Your task to perform on an android device: delete the emails in spam in the gmail app Image 0: 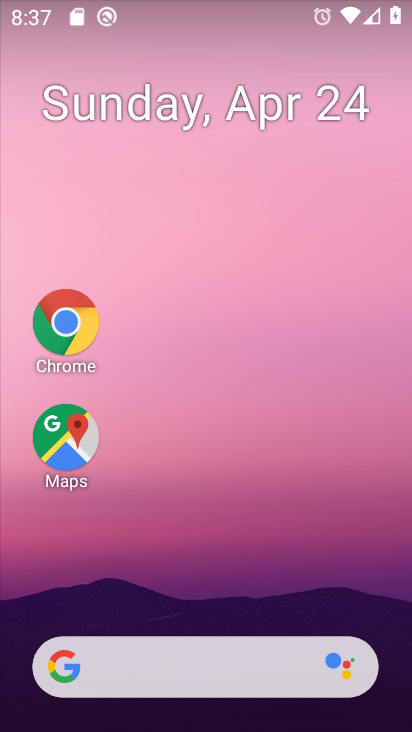
Step 0: drag from (212, 599) to (170, 5)
Your task to perform on an android device: delete the emails in spam in the gmail app Image 1: 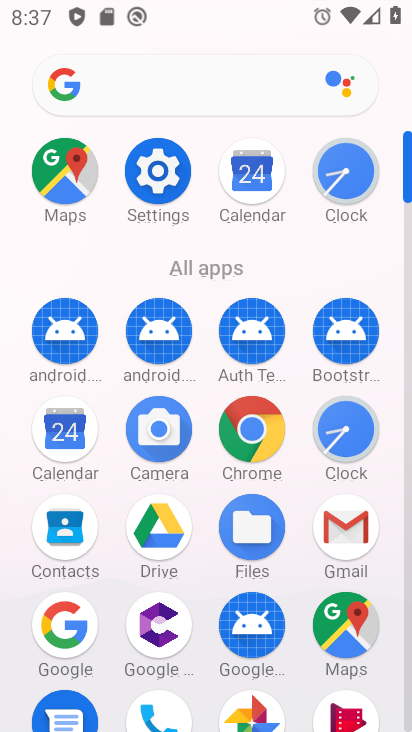
Step 1: click (349, 539)
Your task to perform on an android device: delete the emails in spam in the gmail app Image 2: 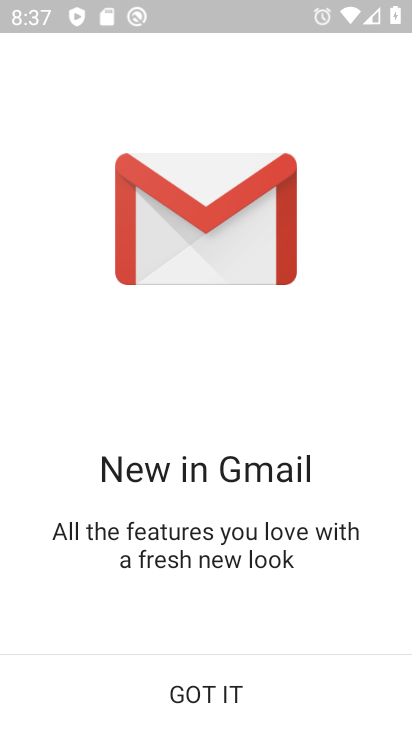
Step 2: click (208, 695)
Your task to perform on an android device: delete the emails in spam in the gmail app Image 3: 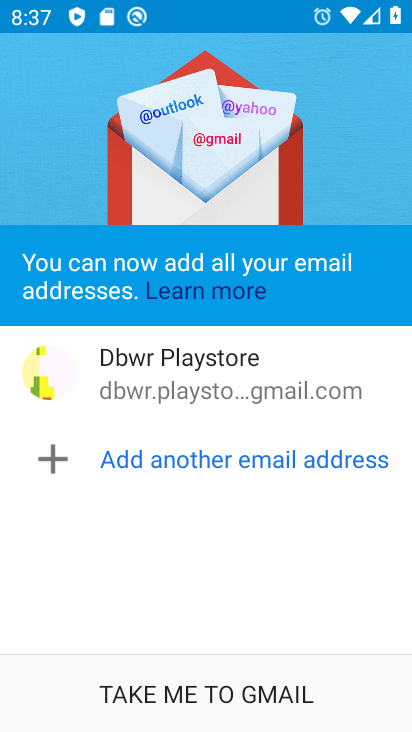
Step 3: click (208, 695)
Your task to perform on an android device: delete the emails in spam in the gmail app Image 4: 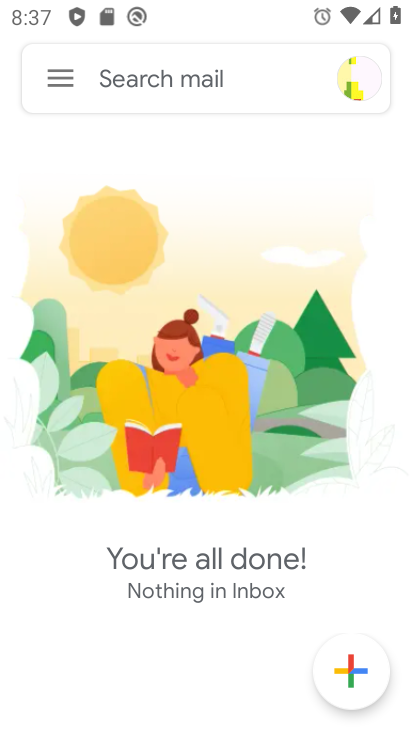
Step 4: click (59, 77)
Your task to perform on an android device: delete the emails in spam in the gmail app Image 5: 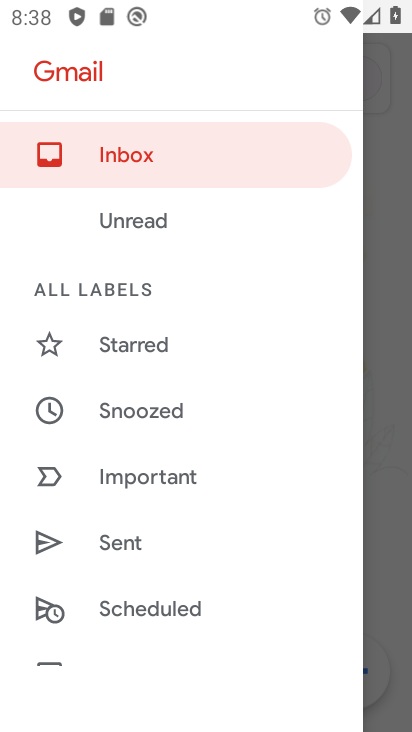
Step 5: drag from (161, 491) to (144, 166)
Your task to perform on an android device: delete the emails in spam in the gmail app Image 6: 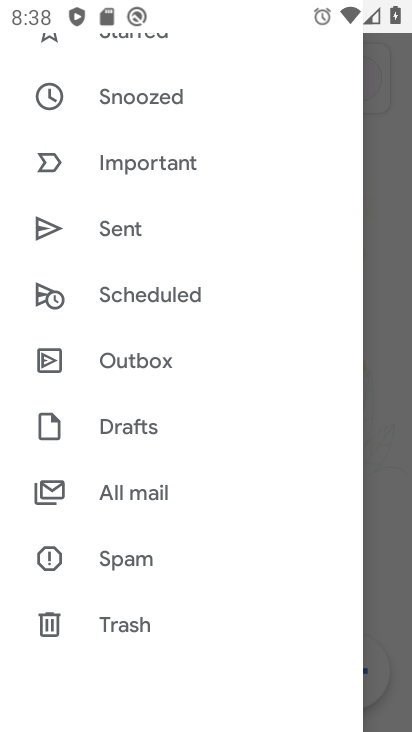
Step 6: click (126, 557)
Your task to perform on an android device: delete the emails in spam in the gmail app Image 7: 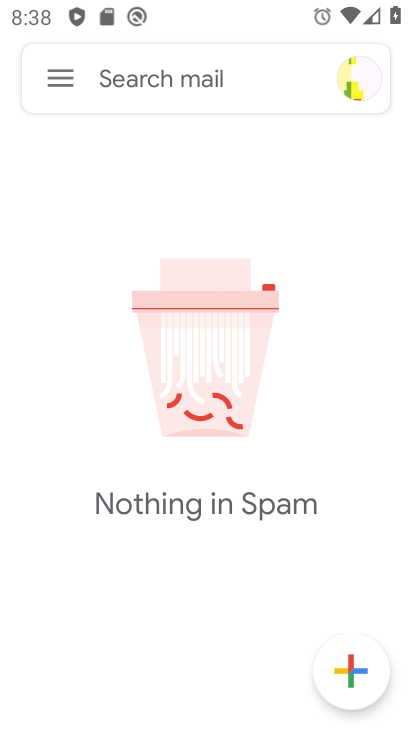
Step 7: task complete